Your task to perform on an android device: Open ESPN.com Image 0: 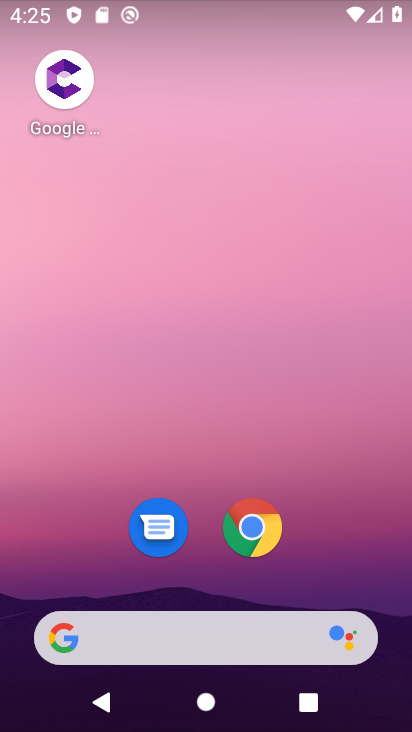
Step 0: click (270, 533)
Your task to perform on an android device: Open ESPN.com Image 1: 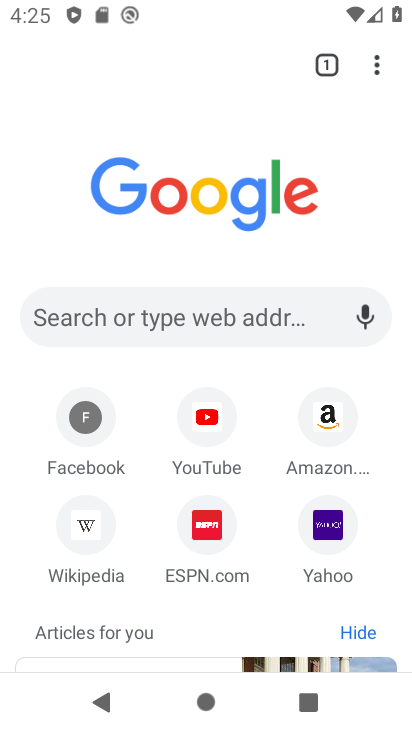
Step 1: click (212, 524)
Your task to perform on an android device: Open ESPN.com Image 2: 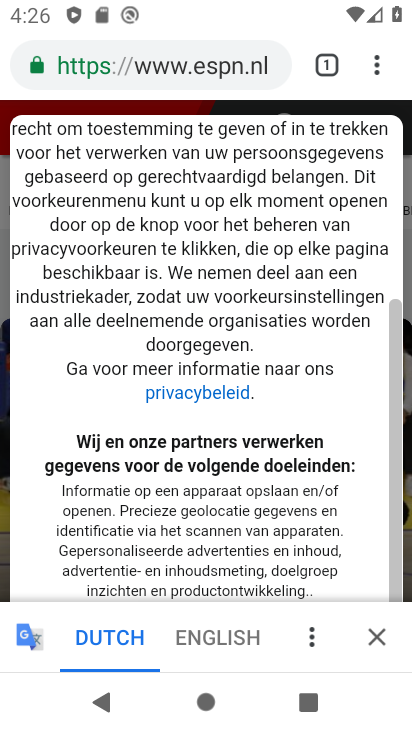
Step 2: task complete